Your task to perform on an android device: turn off improve location accuracy Image 0: 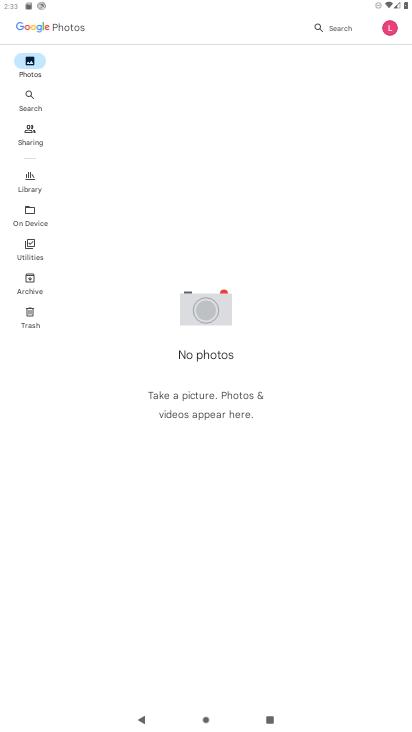
Step 0: press home button
Your task to perform on an android device: turn off improve location accuracy Image 1: 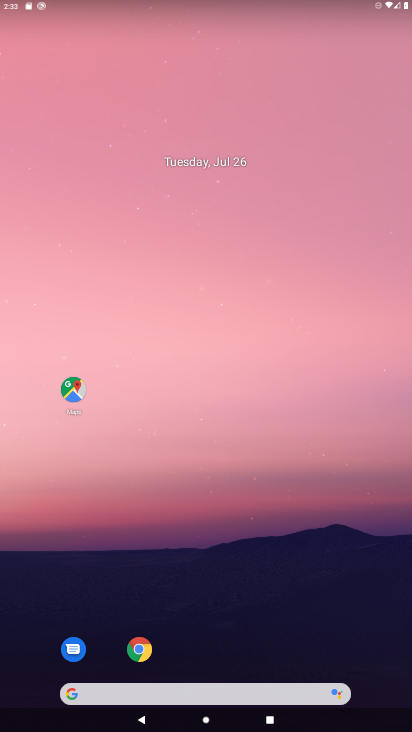
Step 1: drag from (199, 700) to (237, 152)
Your task to perform on an android device: turn off improve location accuracy Image 2: 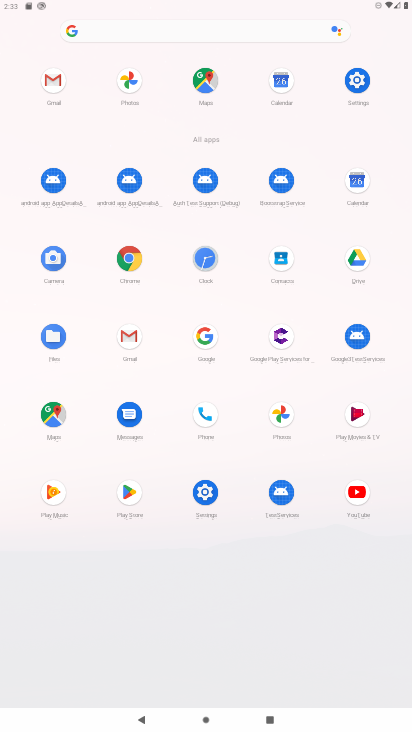
Step 2: click (202, 488)
Your task to perform on an android device: turn off improve location accuracy Image 3: 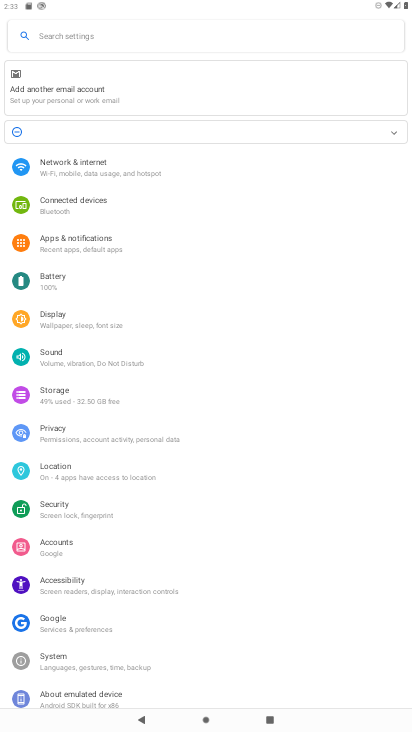
Step 3: click (80, 471)
Your task to perform on an android device: turn off improve location accuracy Image 4: 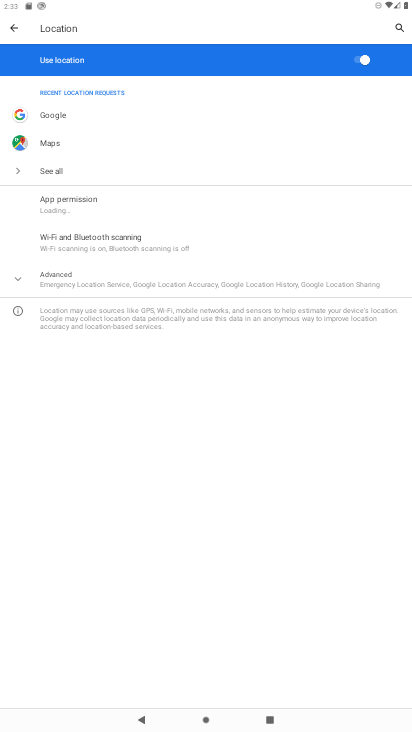
Step 4: click (96, 278)
Your task to perform on an android device: turn off improve location accuracy Image 5: 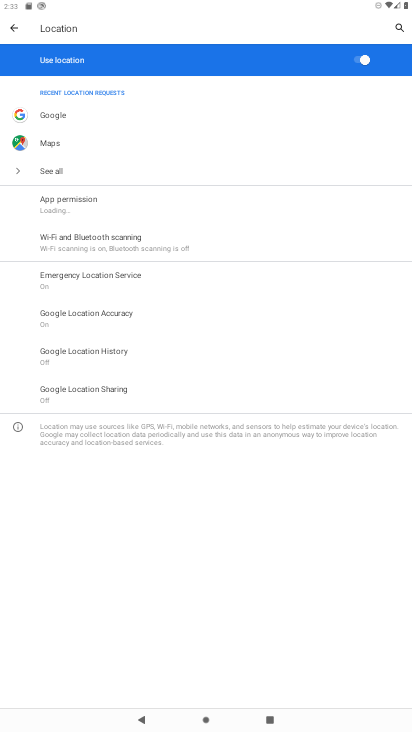
Step 5: click (83, 316)
Your task to perform on an android device: turn off improve location accuracy Image 6: 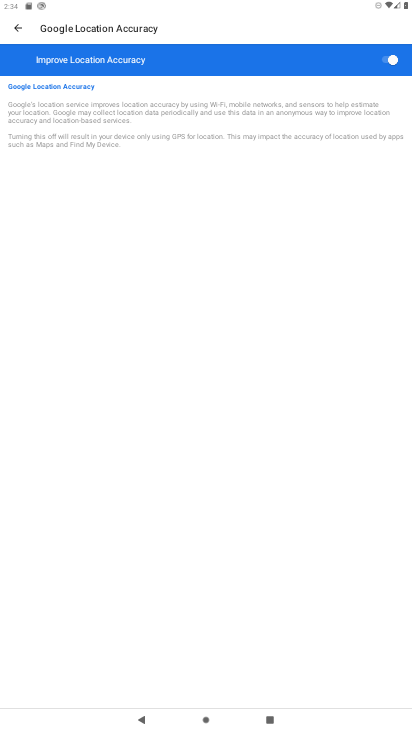
Step 6: click (389, 54)
Your task to perform on an android device: turn off improve location accuracy Image 7: 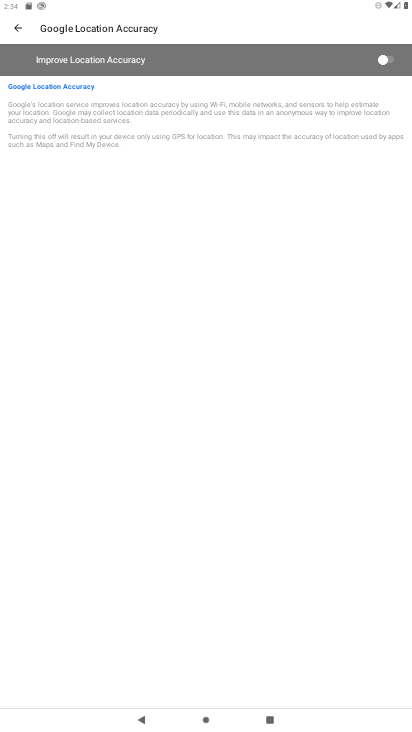
Step 7: task complete